Your task to perform on an android device: Open Chrome and go to settings Image 0: 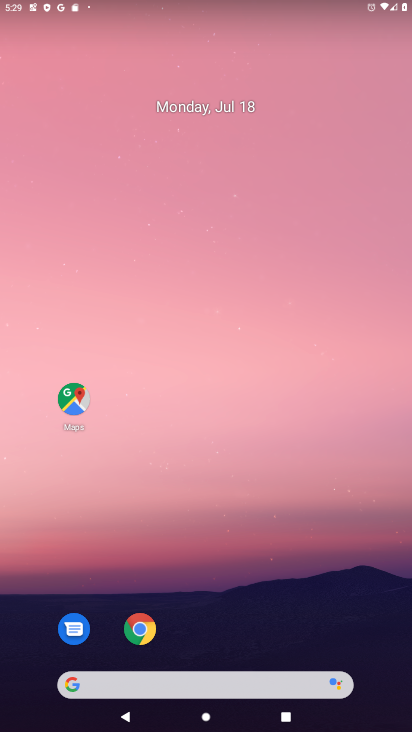
Step 0: drag from (278, 617) to (262, 75)
Your task to perform on an android device: Open Chrome and go to settings Image 1: 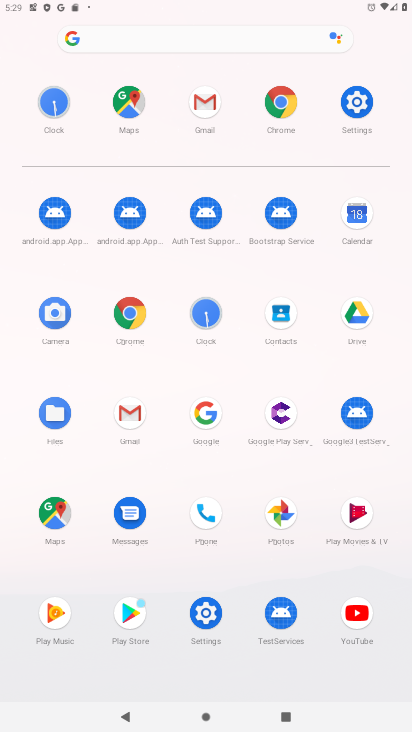
Step 1: click (285, 99)
Your task to perform on an android device: Open Chrome and go to settings Image 2: 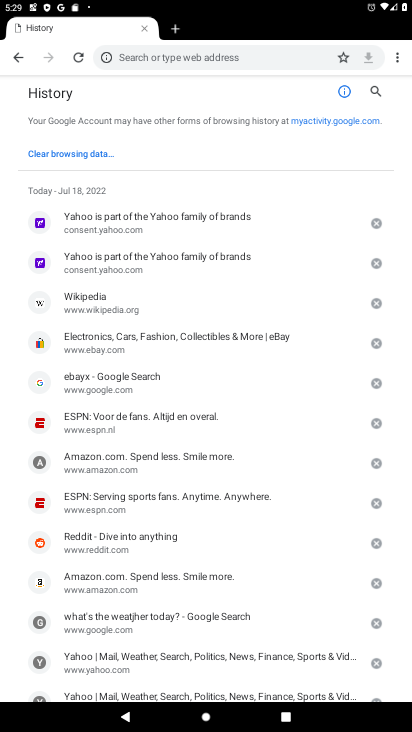
Step 2: task complete